Your task to perform on an android device: set an alarm Image 0: 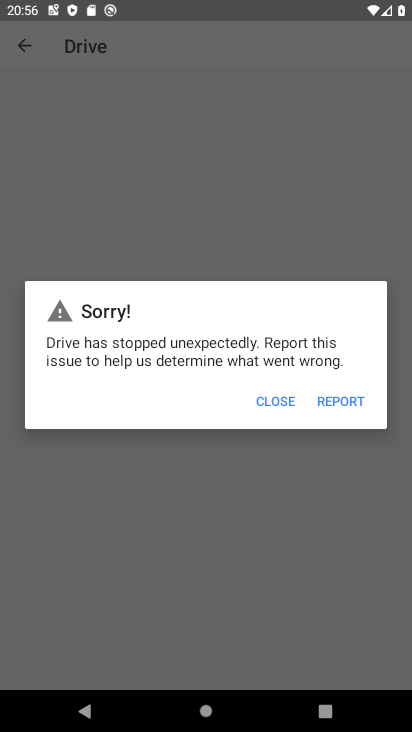
Step 0: press home button
Your task to perform on an android device: set an alarm Image 1: 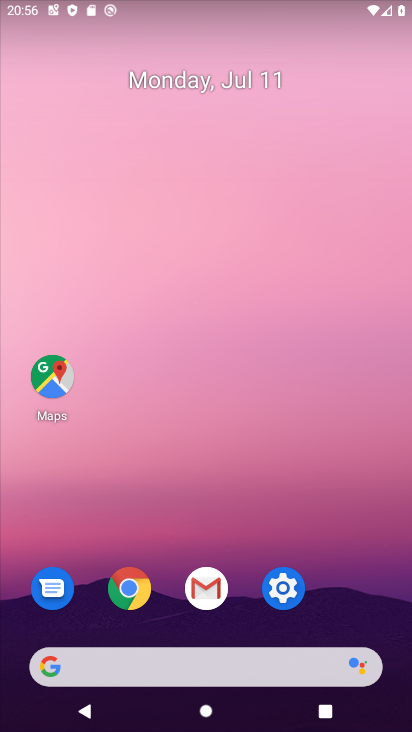
Step 1: drag from (274, 685) to (283, 257)
Your task to perform on an android device: set an alarm Image 2: 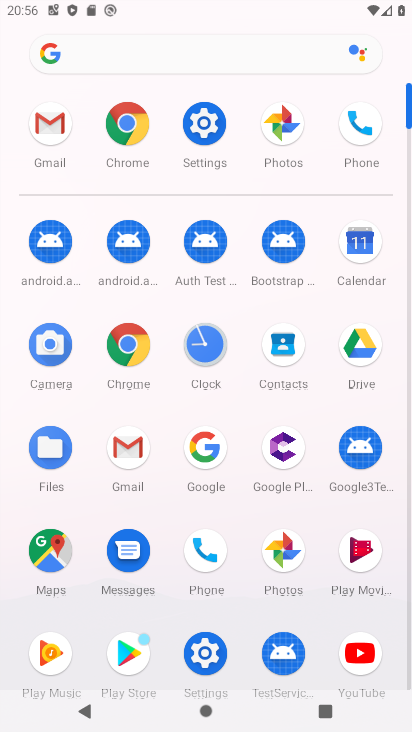
Step 2: click (214, 348)
Your task to perform on an android device: set an alarm Image 3: 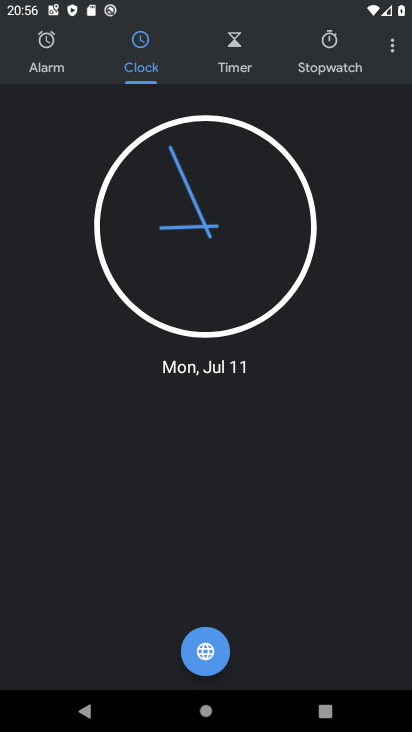
Step 3: click (50, 68)
Your task to perform on an android device: set an alarm Image 4: 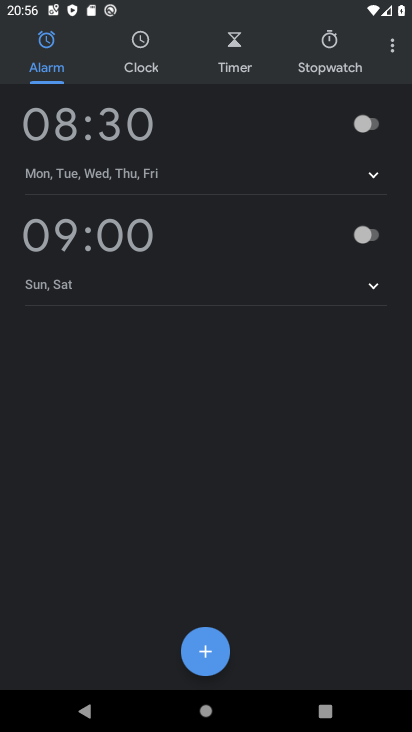
Step 4: click (365, 131)
Your task to perform on an android device: set an alarm Image 5: 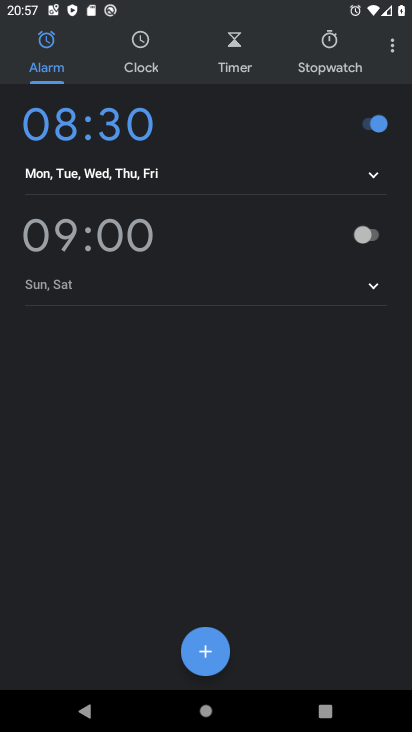
Step 5: task complete